Your task to perform on an android device: clear all cookies in the chrome app Image 0: 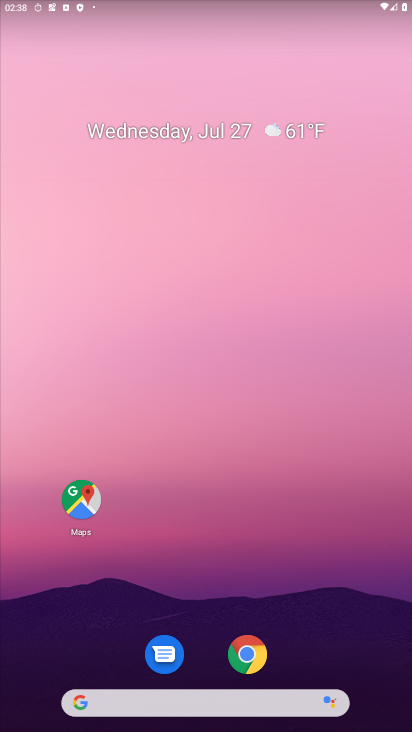
Step 0: drag from (272, 703) to (241, 0)
Your task to perform on an android device: clear all cookies in the chrome app Image 1: 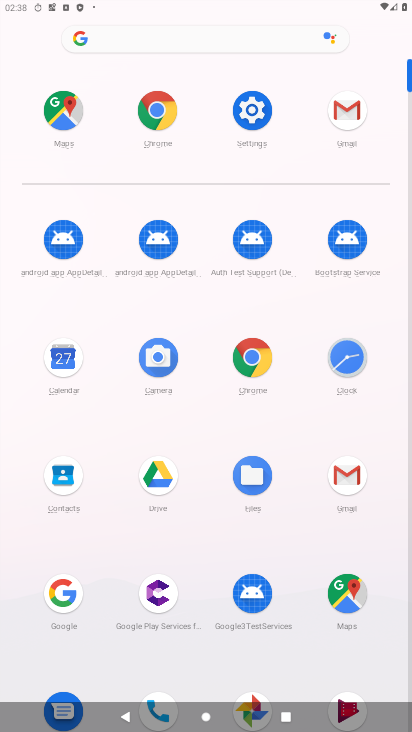
Step 1: click (260, 359)
Your task to perform on an android device: clear all cookies in the chrome app Image 2: 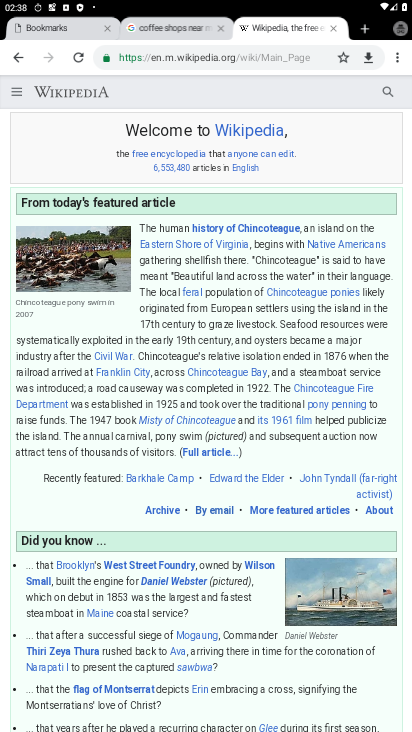
Step 2: click (394, 53)
Your task to perform on an android device: clear all cookies in the chrome app Image 3: 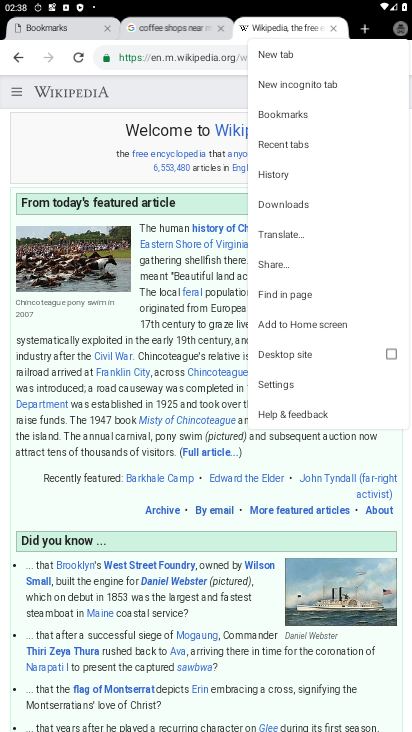
Step 3: click (297, 174)
Your task to perform on an android device: clear all cookies in the chrome app Image 4: 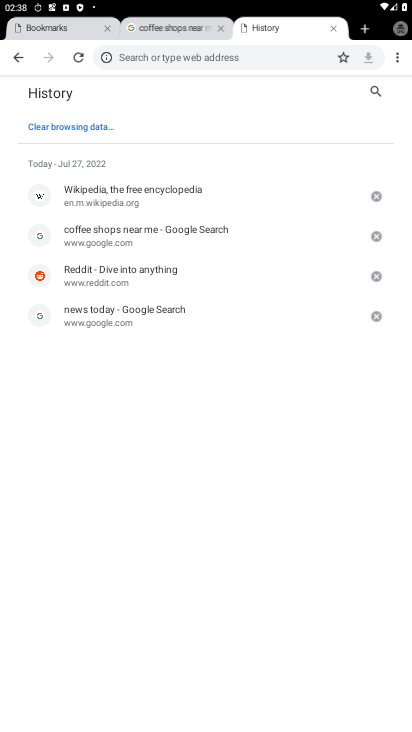
Step 4: click (72, 121)
Your task to perform on an android device: clear all cookies in the chrome app Image 5: 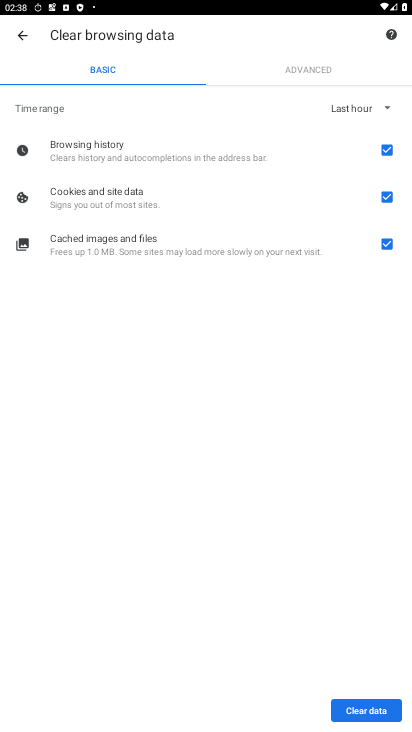
Step 5: click (364, 715)
Your task to perform on an android device: clear all cookies in the chrome app Image 6: 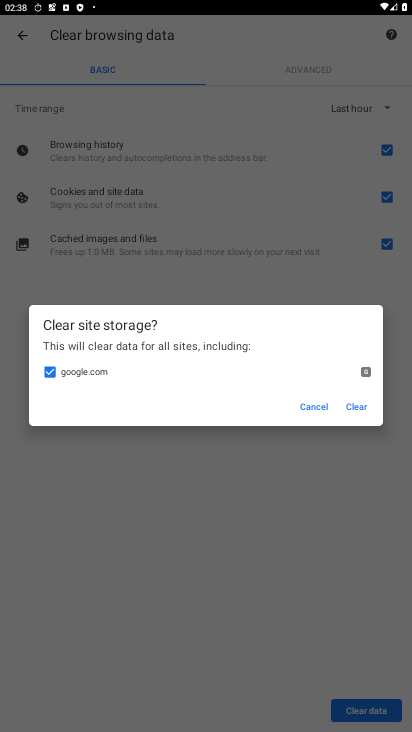
Step 6: click (355, 403)
Your task to perform on an android device: clear all cookies in the chrome app Image 7: 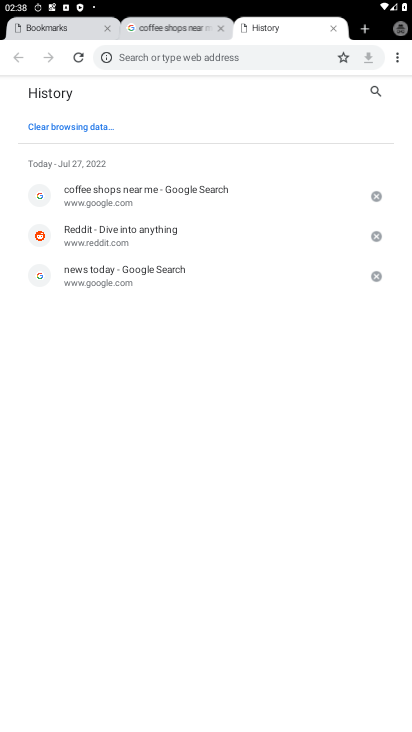
Step 7: click (380, 196)
Your task to perform on an android device: clear all cookies in the chrome app Image 8: 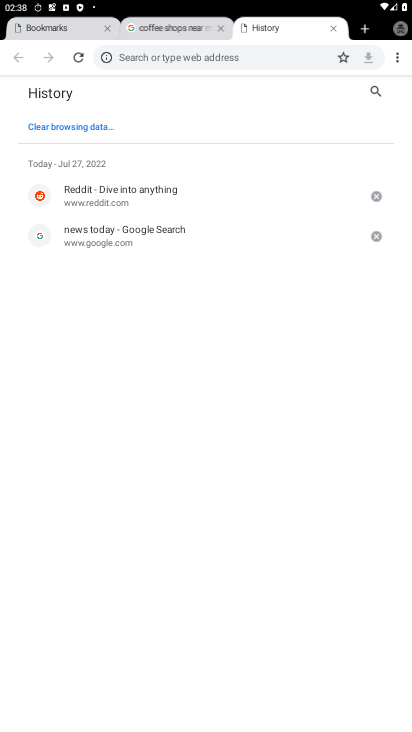
Step 8: click (380, 192)
Your task to perform on an android device: clear all cookies in the chrome app Image 9: 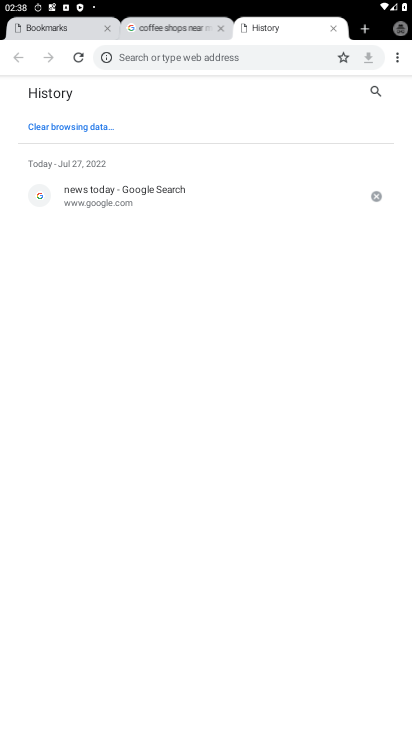
Step 9: click (375, 190)
Your task to perform on an android device: clear all cookies in the chrome app Image 10: 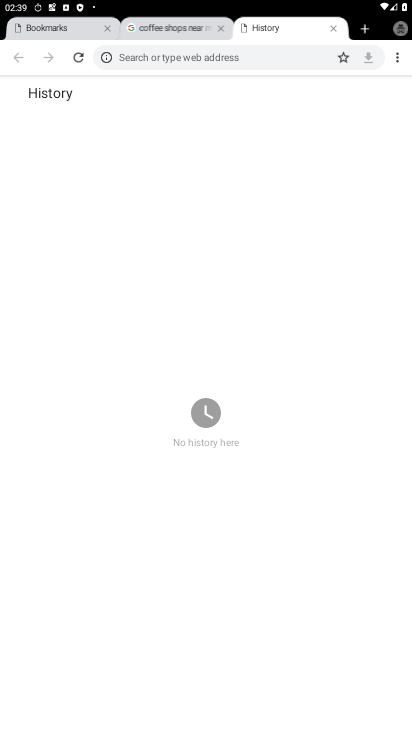
Step 10: task complete